Your task to perform on an android device: turn pop-ups on in chrome Image 0: 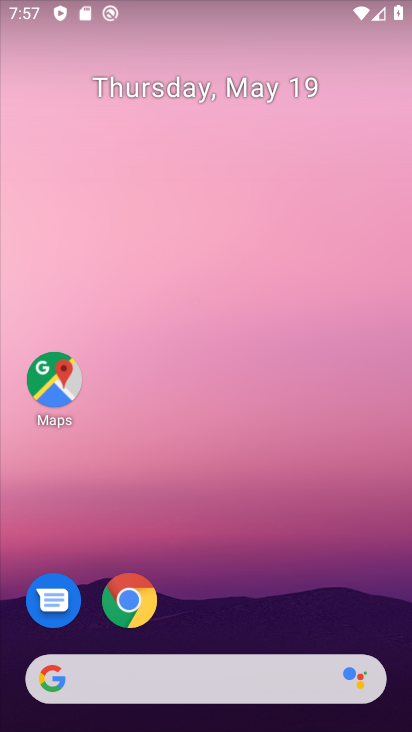
Step 0: click (116, 606)
Your task to perform on an android device: turn pop-ups on in chrome Image 1: 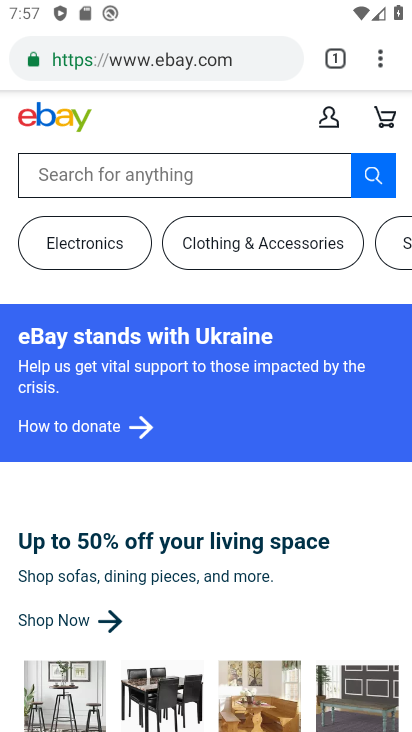
Step 1: click (375, 66)
Your task to perform on an android device: turn pop-ups on in chrome Image 2: 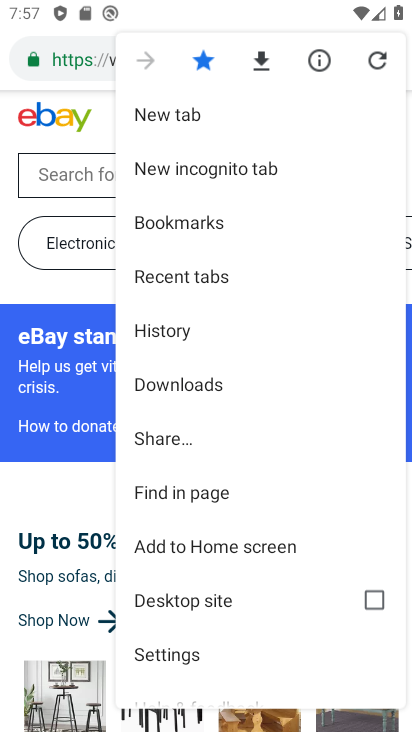
Step 2: click (222, 661)
Your task to perform on an android device: turn pop-ups on in chrome Image 3: 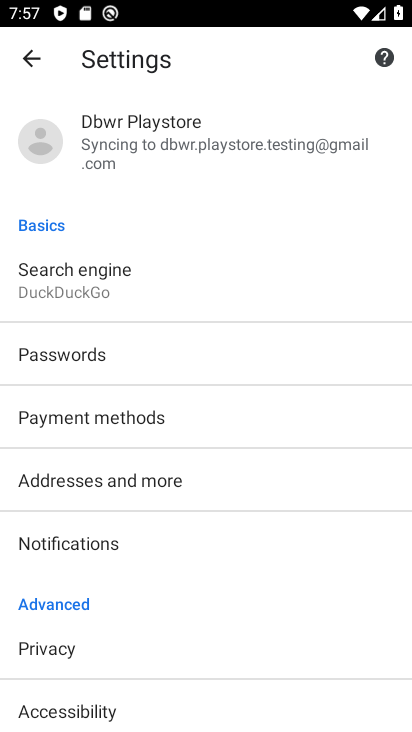
Step 3: drag from (178, 659) to (171, 299)
Your task to perform on an android device: turn pop-ups on in chrome Image 4: 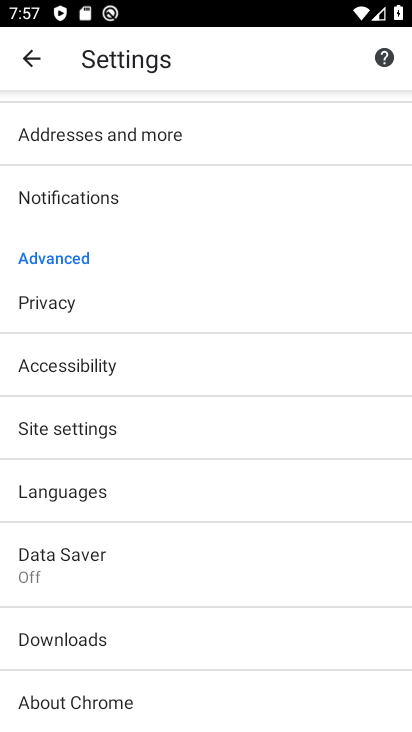
Step 4: click (217, 431)
Your task to perform on an android device: turn pop-ups on in chrome Image 5: 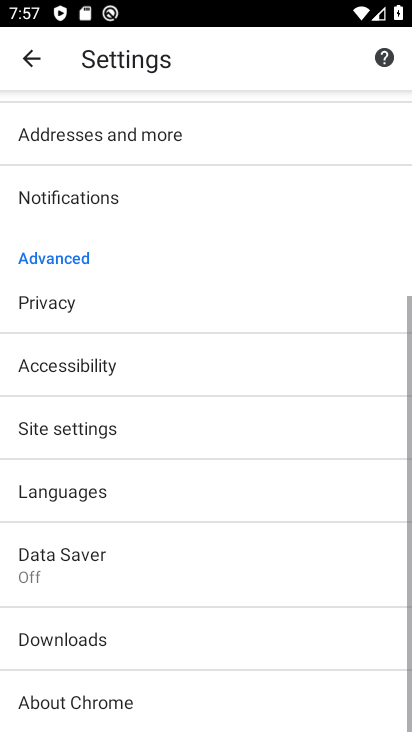
Step 5: click (217, 431)
Your task to perform on an android device: turn pop-ups on in chrome Image 6: 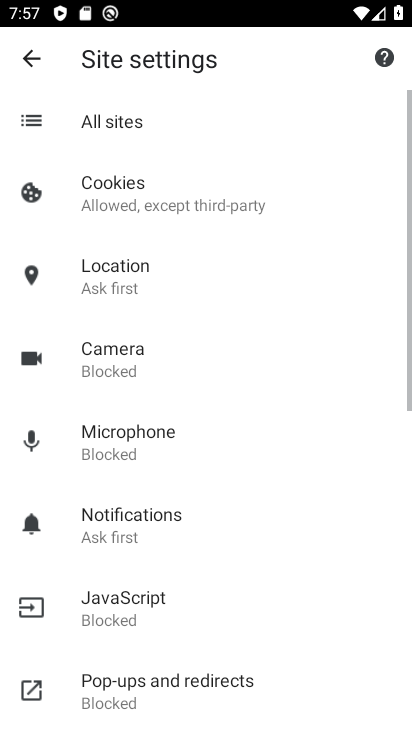
Step 6: click (159, 605)
Your task to perform on an android device: turn pop-ups on in chrome Image 7: 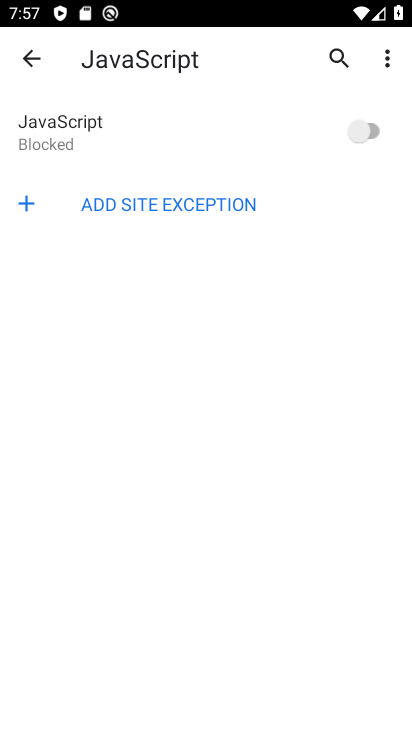
Step 7: click (331, 140)
Your task to perform on an android device: turn pop-ups on in chrome Image 8: 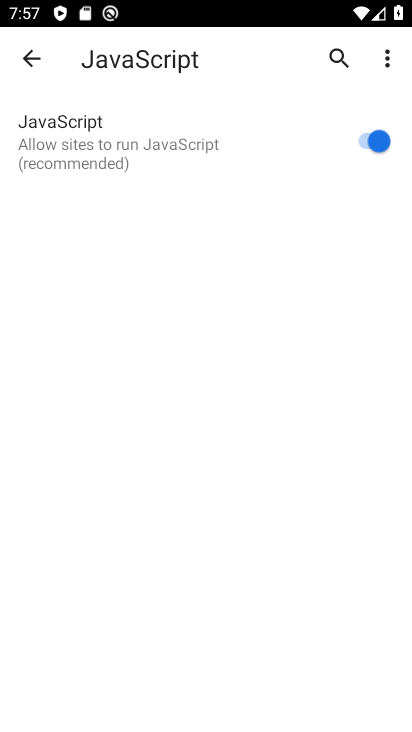
Step 8: click (46, 64)
Your task to perform on an android device: turn pop-ups on in chrome Image 9: 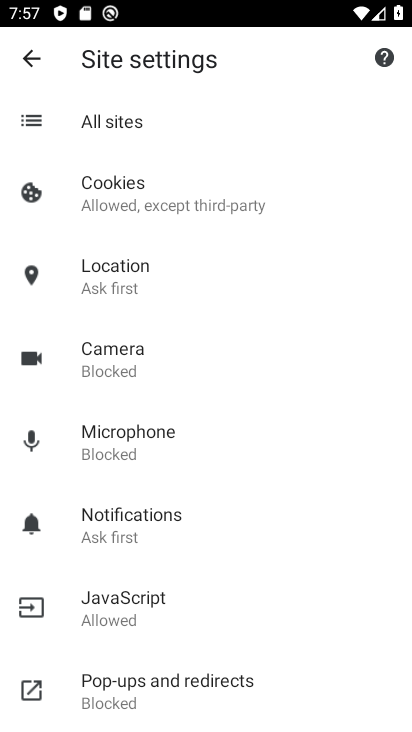
Step 9: click (139, 506)
Your task to perform on an android device: turn pop-ups on in chrome Image 10: 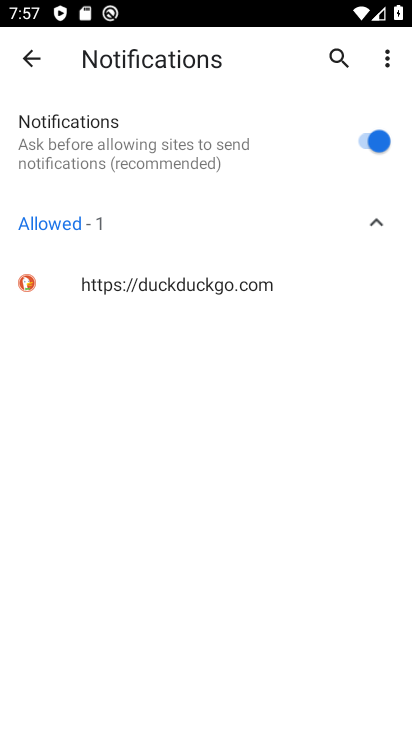
Step 10: click (37, 68)
Your task to perform on an android device: turn pop-ups on in chrome Image 11: 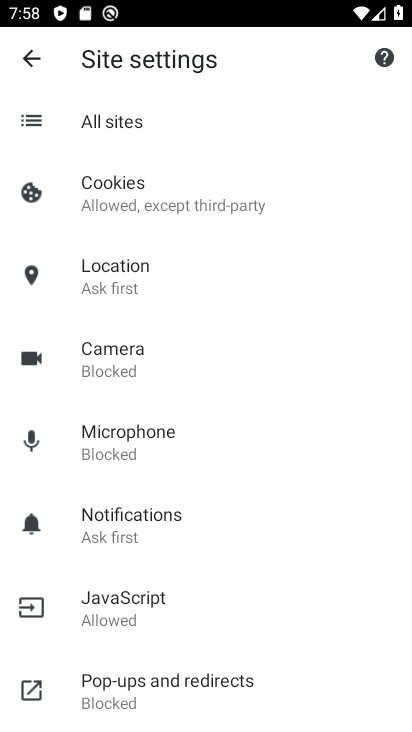
Step 11: click (160, 669)
Your task to perform on an android device: turn pop-ups on in chrome Image 12: 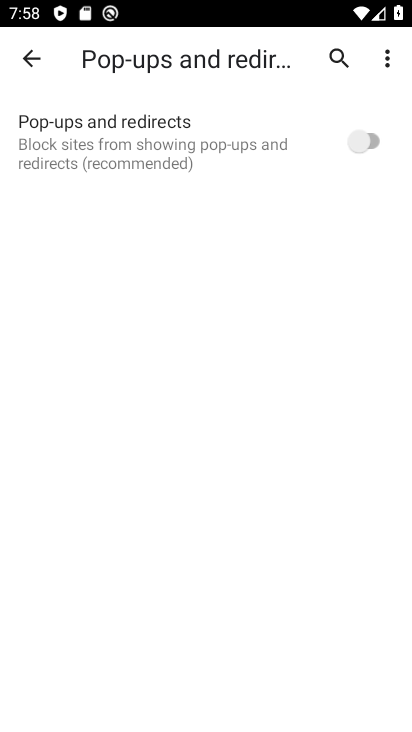
Step 12: click (341, 138)
Your task to perform on an android device: turn pop-ups on in chrome Image 13: 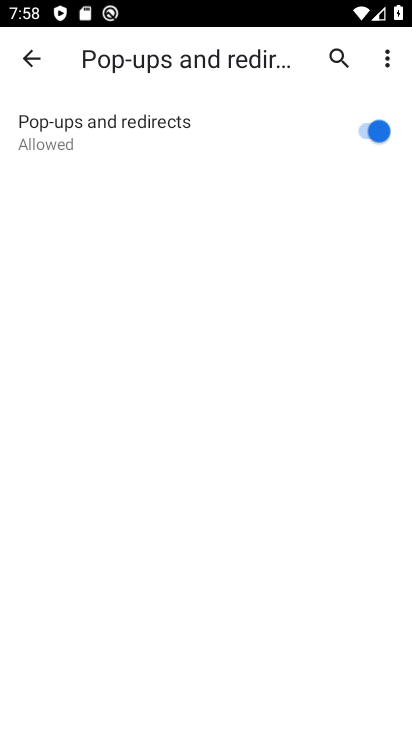
Step 13: click (341, 138)
Your task to perform on an android device: turn pop-ups on in chrome Image 14: 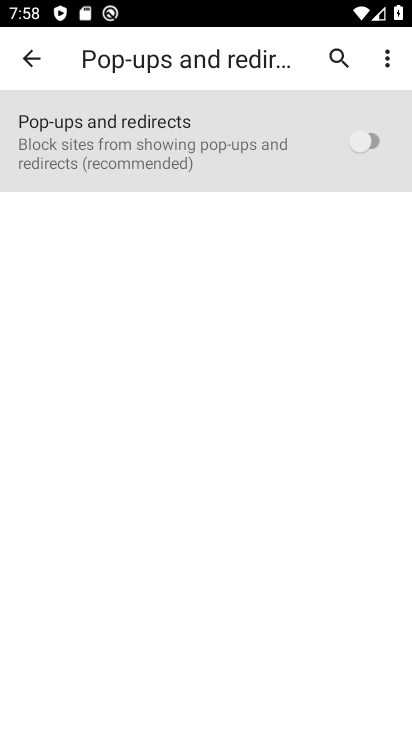
Step 14: click (341, 138)
Your task to perform on an android device: turn pop-ups on in chrome Image 15: 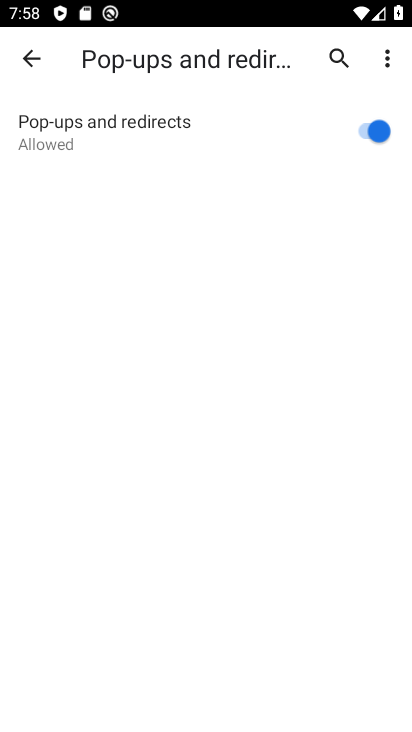
Step 15: task complete